Your task to perform on an android device: choose inbox layout in the gmail app Image 0: 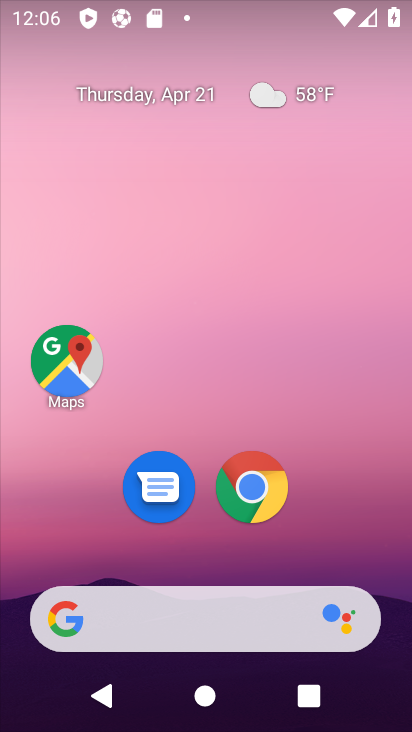
Step 0: drag from (390, 535) to (368, 35)
Your task to perform on an android device: choose inbox layout in the gmail app Image 1: 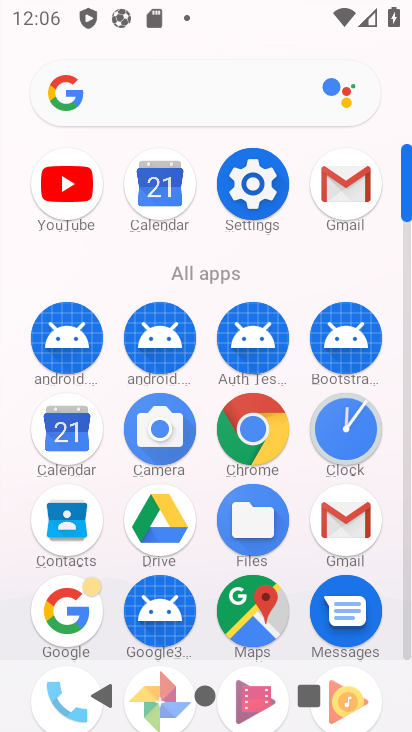
Step 1: click (339, 192)
Your task to perform on an android device: choose inbox layout in the gmail app Image 2: 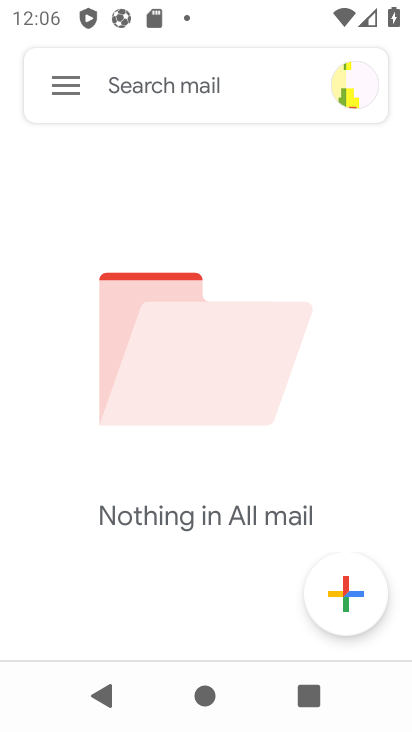
Step 2: click (74, 85)
Your task to perform on an android device: choose inbox layout in the gmail app Image 3: 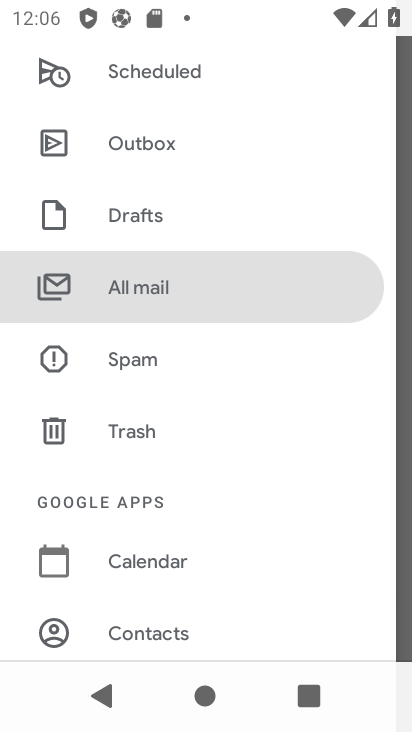
Step 3: drag from (260, 494) to (219, 93)
Your task to perform on an android device: choose inbox layout in the gmail app Image 4: 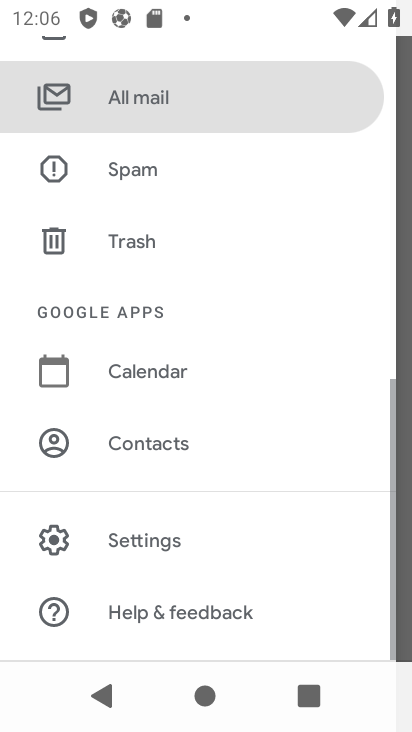
Step 4: click (138, 542)
Your task to perform on an android device: choose inbox layout in the gmail app Image 5: 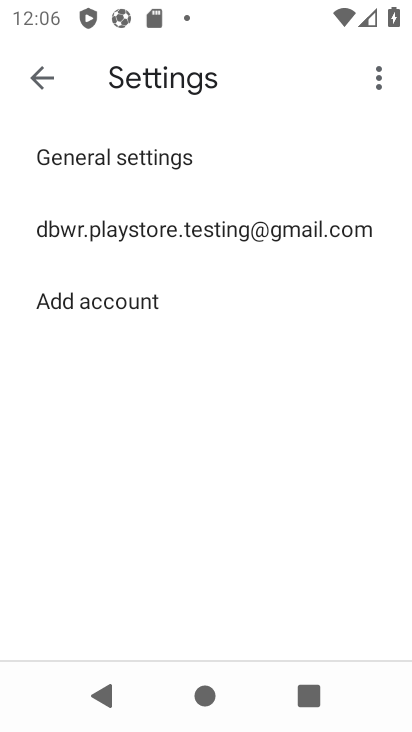
Step 5: click (187, 238)
Your task to perform on an android device: choose inbox layout in the gmail app Image 6: 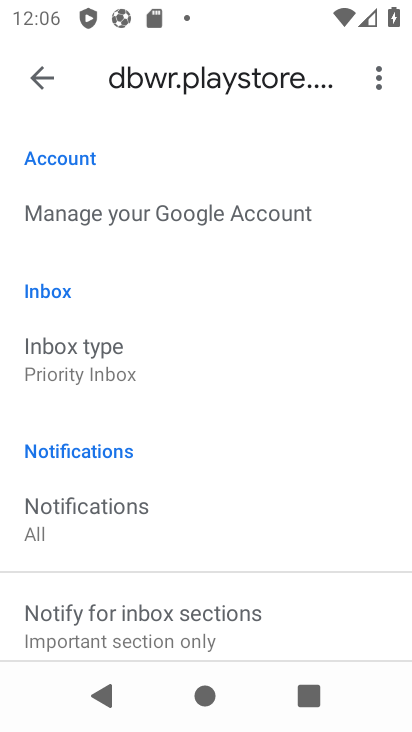
Step 6: click (83, 374)
Your task to perform on an android device: choose inbox layout in the gmail app Image 7: 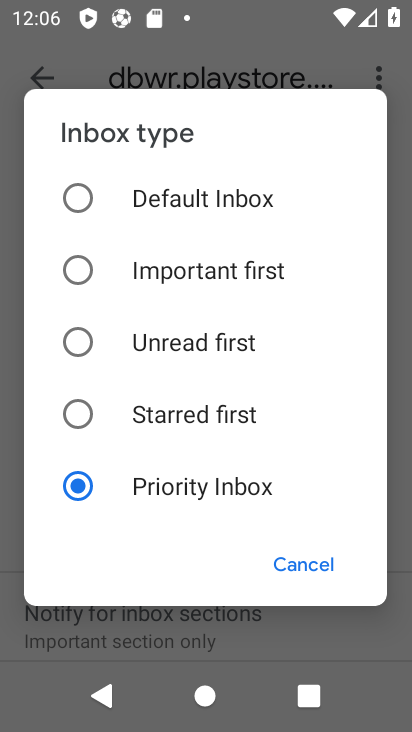
Step 7: click (79, 348)
Your task to perform on an android device: choose inbox layout in the gmail app Image 8: 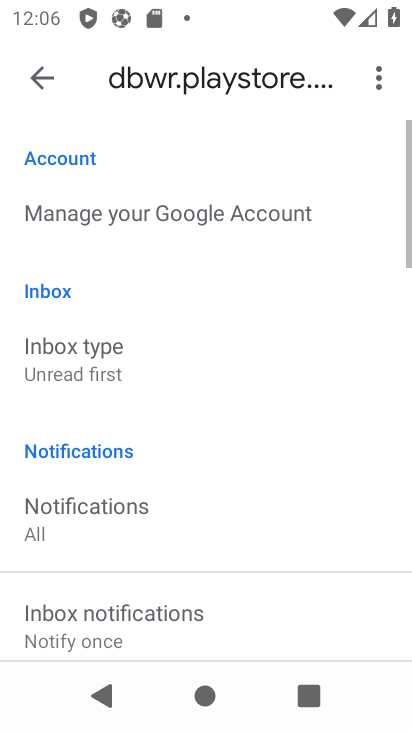
Step 8: task complete